Your task to perform on an android device: change notification settings in the gmail app Image 0: 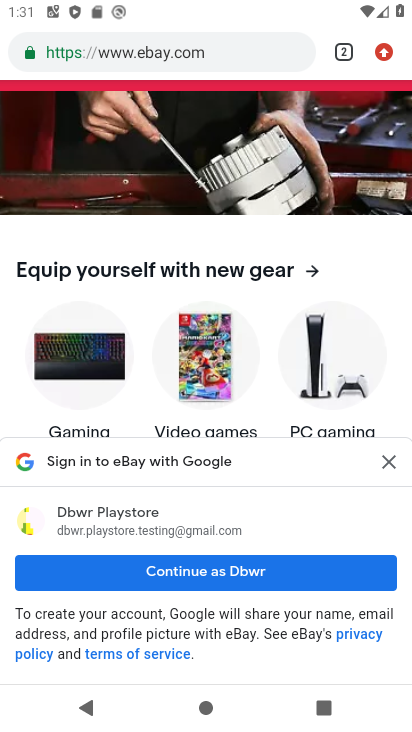
Step 0: press home button
Your task to perform on an android device: change notification settings in the gmail app Image 1: 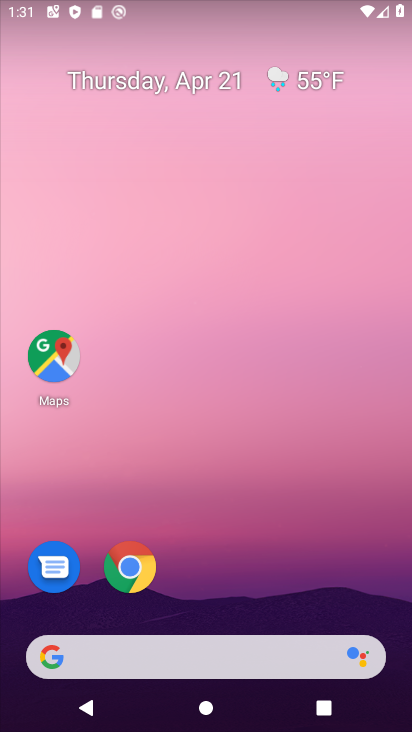
Step 1: drag from (199, 621) to (152, 344)
Your task to perform on an android device: change notification settings in the gmail app Image 2: 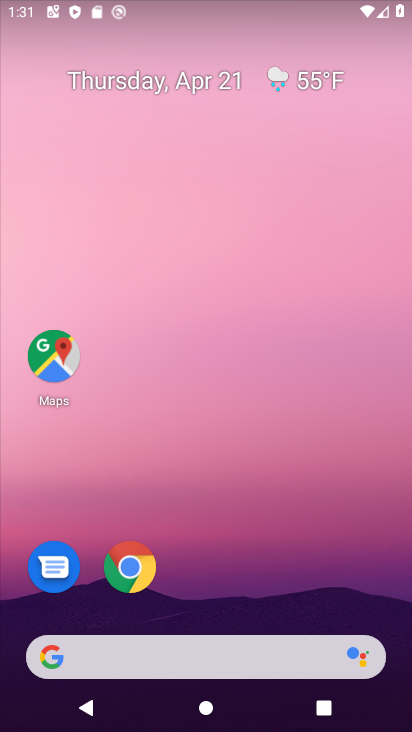
Step 2: drag from (295, 532) to (311, 9)
Your task to perform on an android device: change notification settings in the gmail app Image 3: 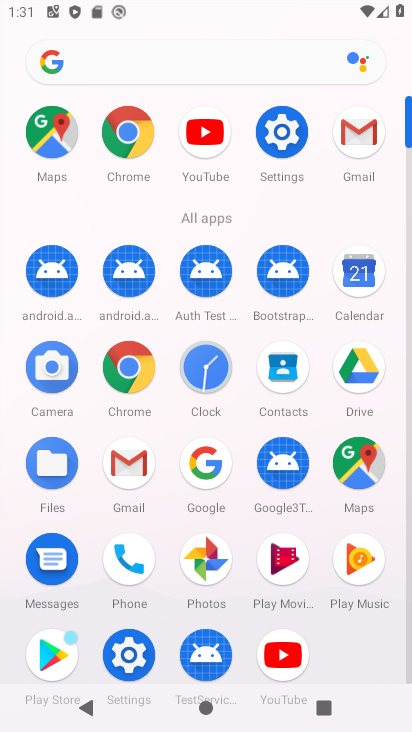
Step 3: click (354, 134)
Your task to perform on an android device: change notification settings in the gmail app Image 4: 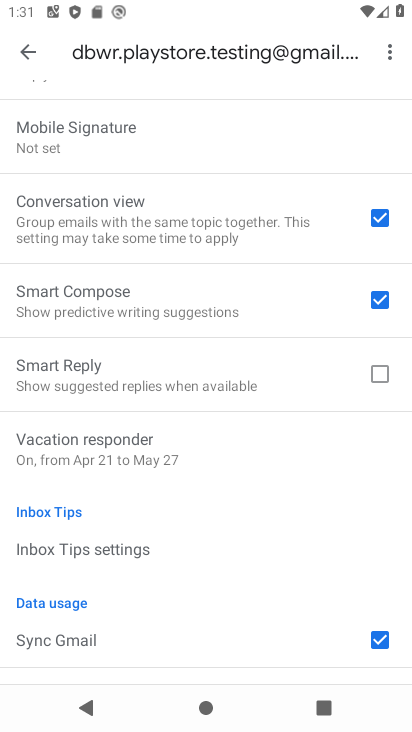
Step 4: click (16, 53)
Your task to perform on an android device: change notification settings in the gmail app Image 5: 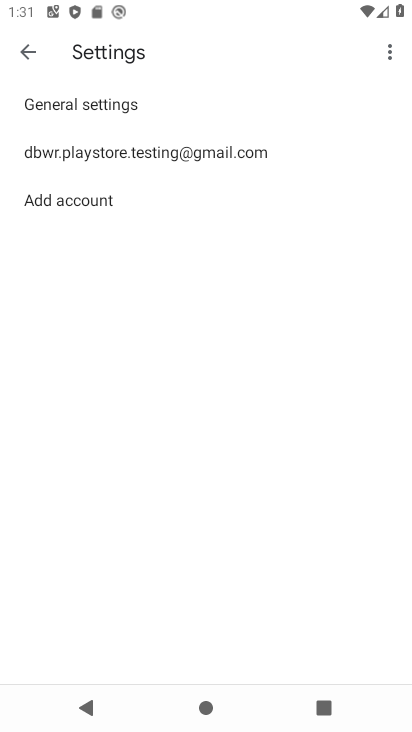
Step 5: click (118, 107)
Your task to perform on an android device: change notification settings in the gmail app Image 6: 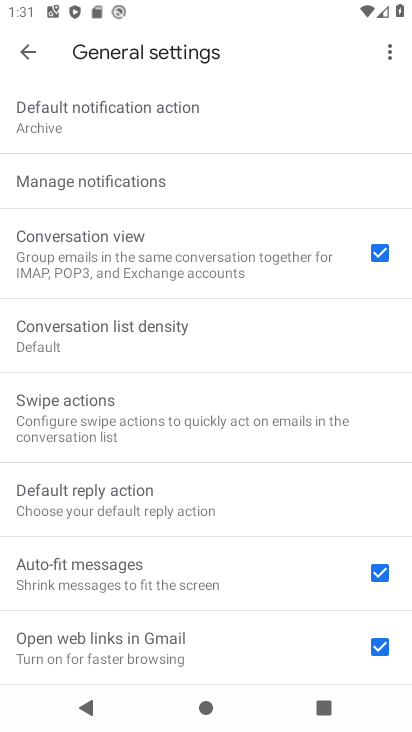
Step 6: click (160, 183)
Your task to perform on an android device: change notification settings in the gmail app Image 7: 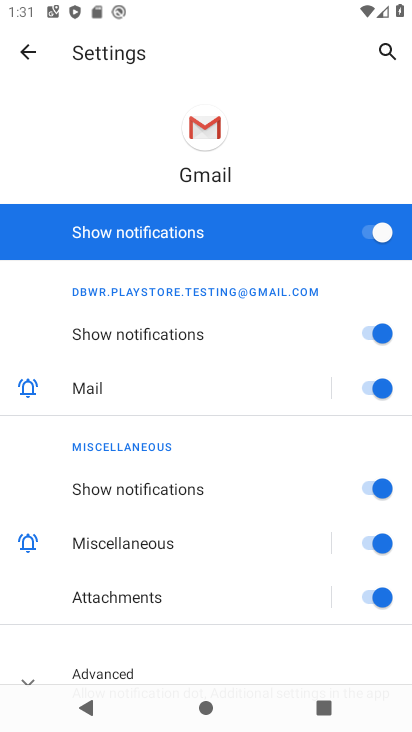
Step 7: click (364, 231)
Your task to perform on an android device: change notification settings in the gmail app Image 8: 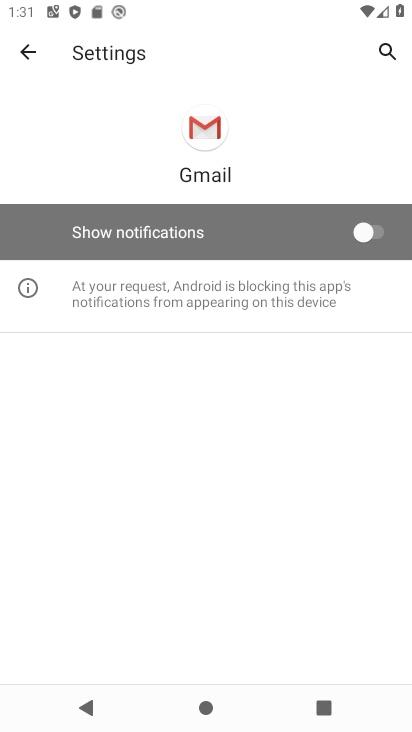
Step 8: task complete